Your task to perform on an android device: uninstall "DoorDash - Dasher" Image 0: 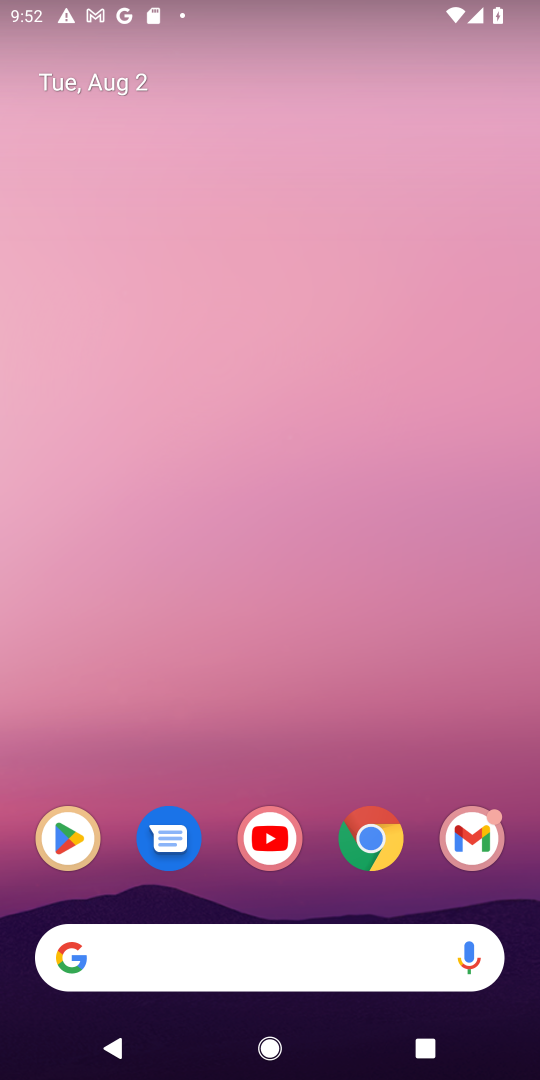
Step 0: drag from (320, 781) to (326, 73)
Your task to perform on an android device: uninstall "DoorDash - Dasher" Image 1: 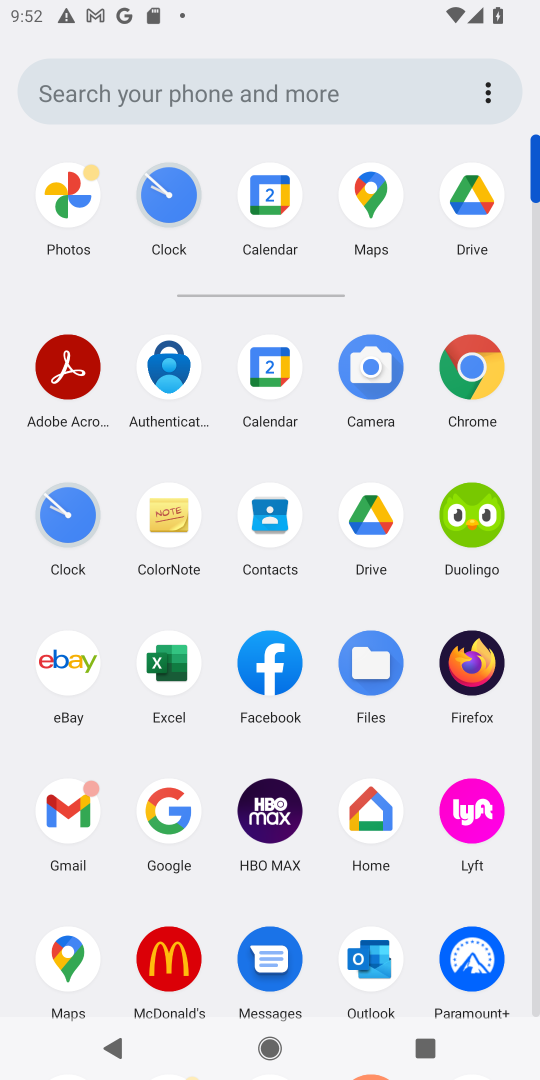
Step 1: drag from (322, 900) to (333, 475)
Your task to perform on an android device: uninstall "DoorDash - Dasher" Image 2: 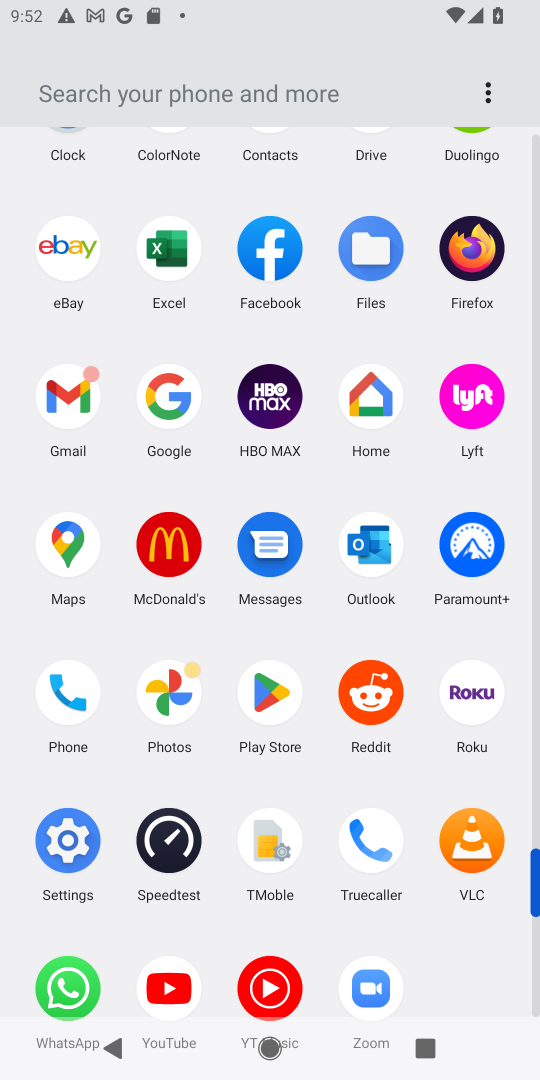
Step 2: click (275, 695)
Your task to perform on an android device: uninstall "DoorDash - Dasher" Image 3: 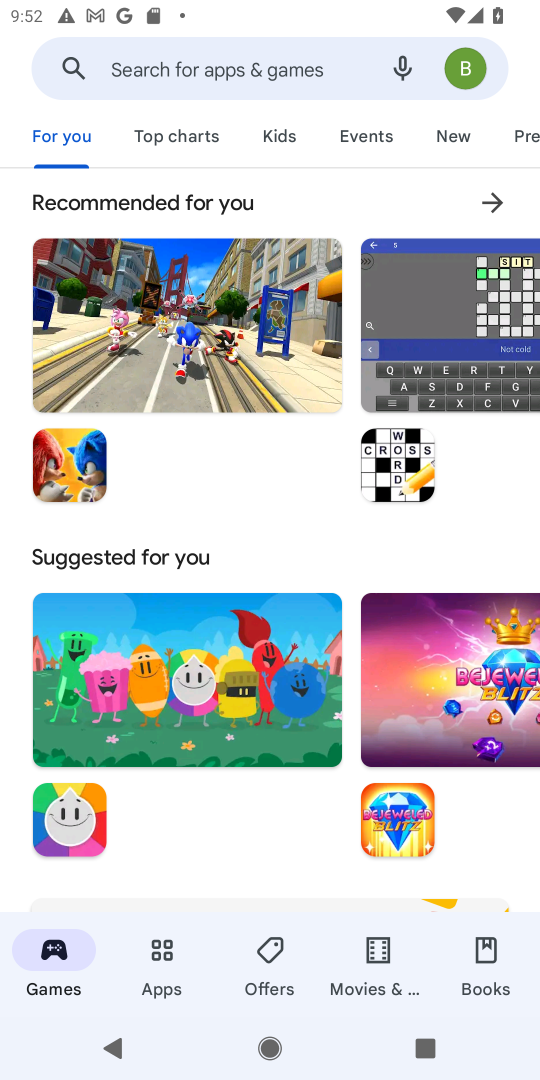
Step 3: click (333, 66)
Your task to perform on an android device: uninstall "DoorDash - Dasher" Image 4: 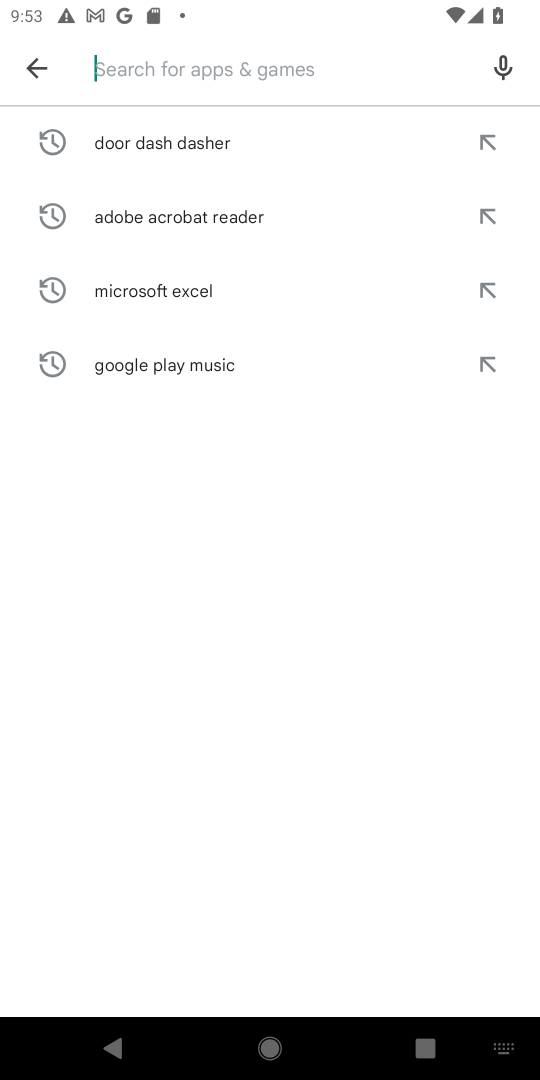
Step 4: click (304, 146)
Your task to perform on an android device: uninstall "DoorDash - Dasher" Image 5: 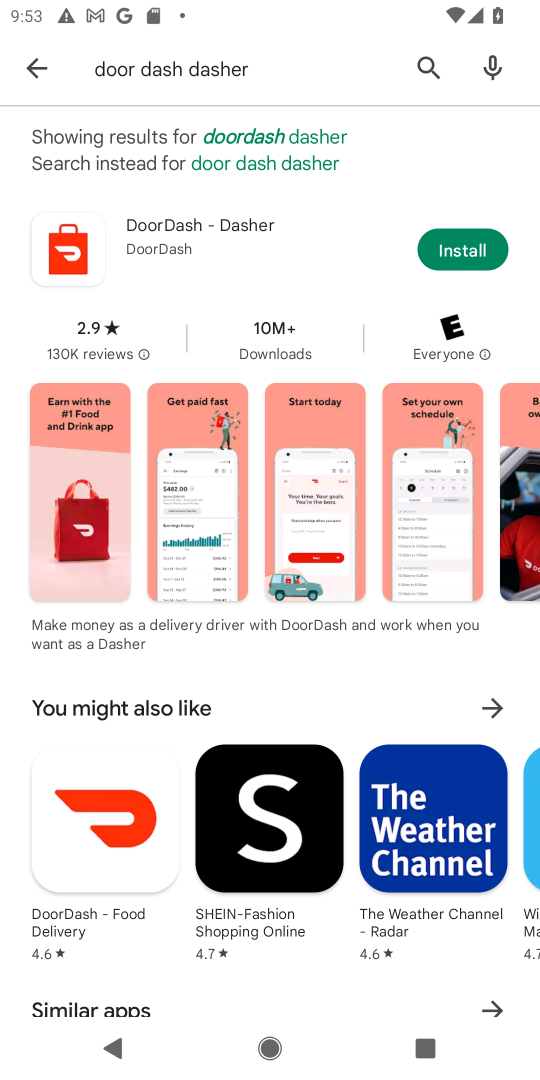
Step 5: task complete